Your task to perform on an android device: Go to accessibility settings Image 0: 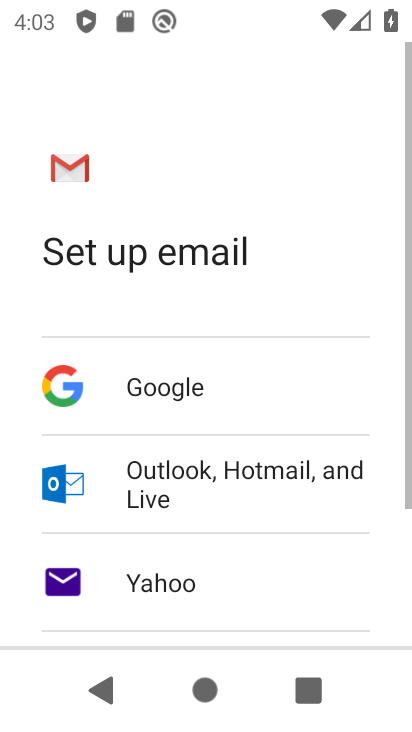
Step 0: press home button
Your task to perform on an android device: Go to accessibility settings Image 1: 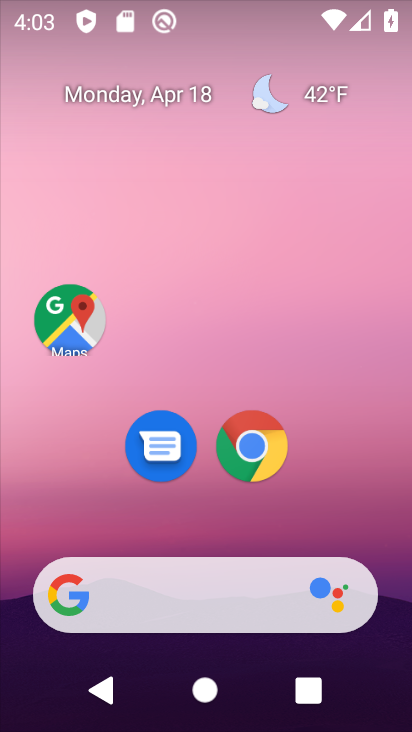
Step 1: drag from (313, 425) to (314, 123)
Your task to perform on an android device: Go to accessibility settings Image 2: 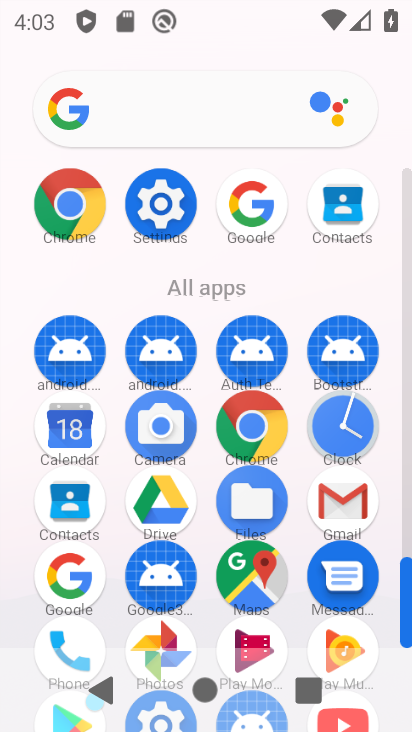
Step 2: click (161, 206)
Your task to perform on an android device: Go to accessibility settings Image 3: 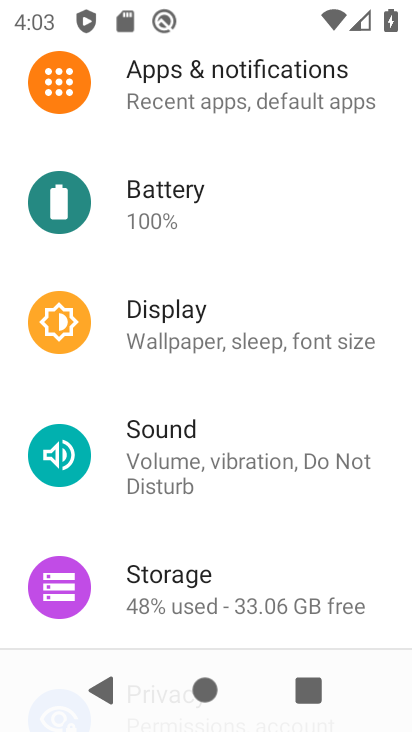
Step 3: drag from (263, 578) to (251, 184)
Your task to perform on an android device: Go to accessibility settings Image 4: 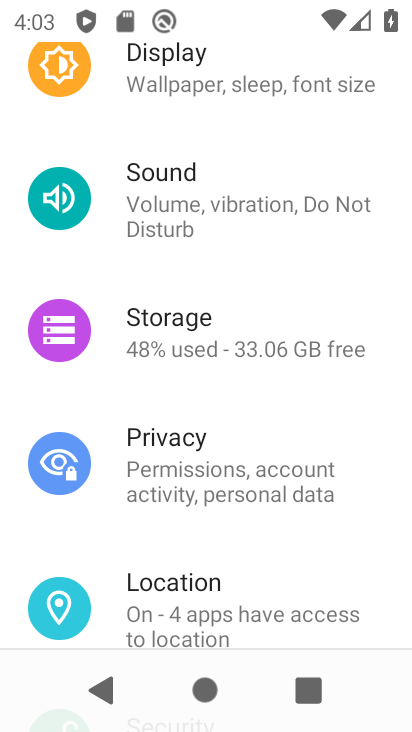
Step 4: drag from (237, 611) to (263, 277)
Your task to perform on an android device: Go to accessibility settings Image 5: 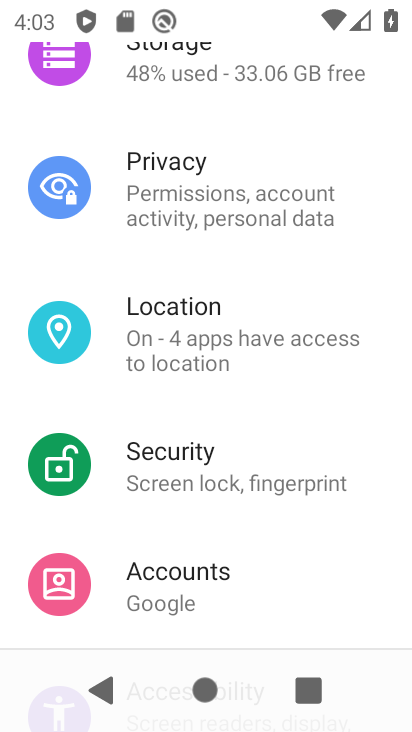
Step 5: drag from (288, 561) to (314, 226)
Your task to perform on an android device: Go to accessibility settings Image 6: 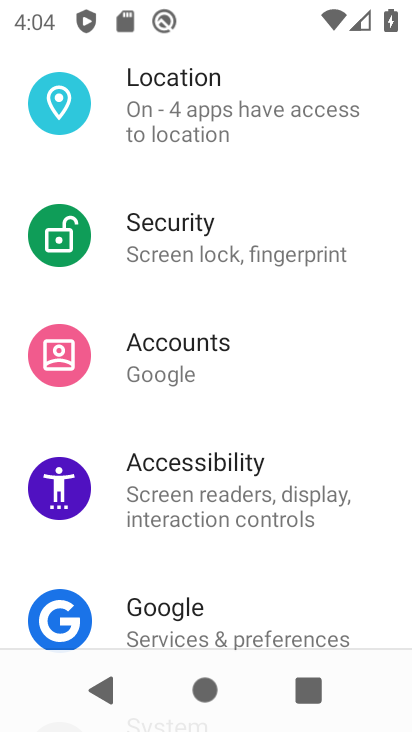
Step 6: click (248, 481)
Your task to perform on an android device: Go to accessibility settings Image 7: 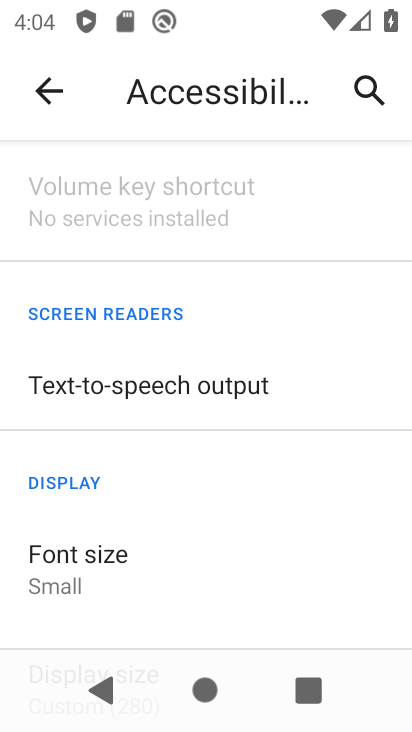
Step 7: task complete